Your task to perform on an android device: Go to Wikipedia Image 0: 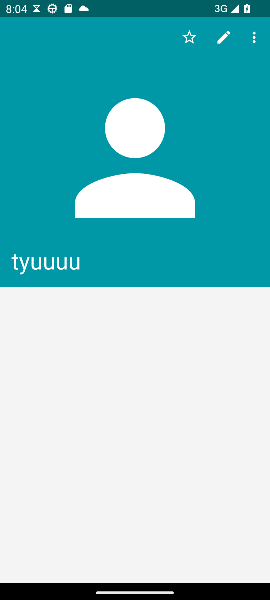
Step 0: press home button
Your task to perform on an android device: Go to Wikipedia Image 1: 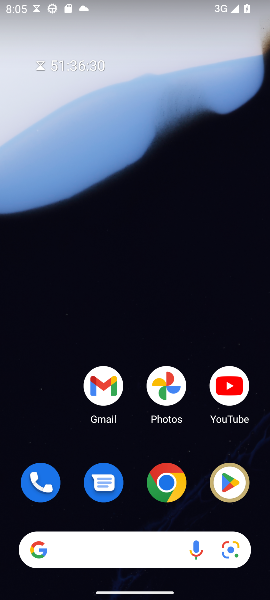
Step 1: drag from (83, 456) to (144, 69)
Your task to perform on an android device: Go to Wikipedia Image 2: 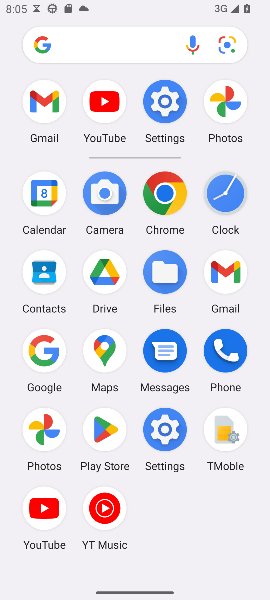
Step 2: click (159, 202)
Your task to perform on an android device: Go to Wikipedia Image 3: 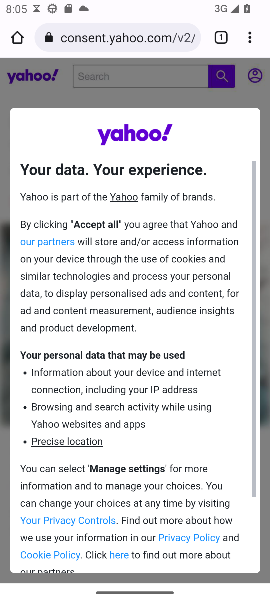
Step 3: click (142, 46)
Your task to perform on an android device: Go to Wikipedia Image 4: 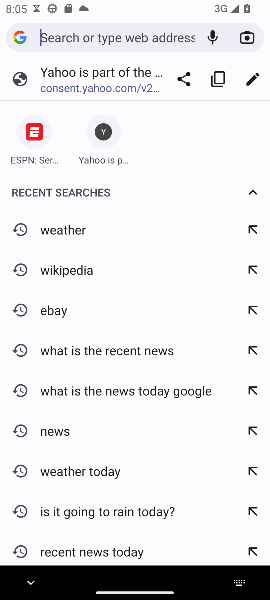
Step 4: press back button
Your task to perform on an android device: Go to Wikipedia Image 5: 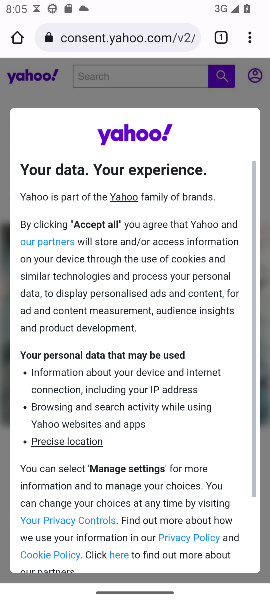
Step 5: press back button
Your task to perform on an android device: Go to Wikipedia Image 6: 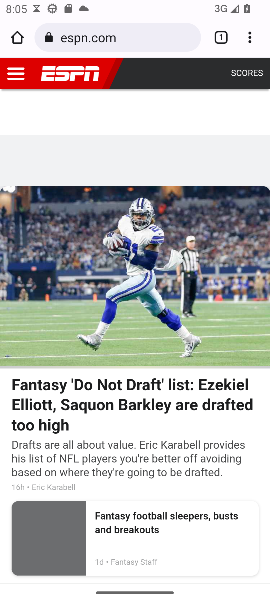
Step 6: press back button
Your task to perform on an android device: Go to Wikipedia Image 7: 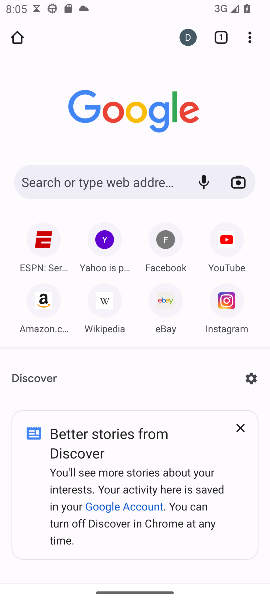
Step 7: click (92, 309)
Your task to perform on an android device: Go to Wikipedia Image 8: 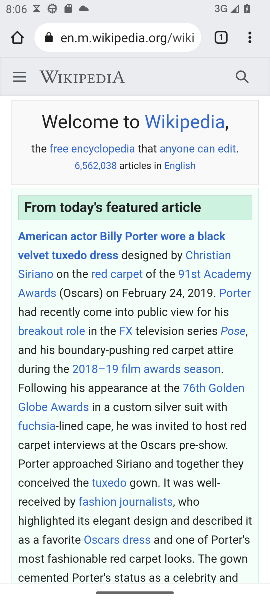
Step 8: task complete